Your task to perform on an android device: Open battery settings Image 0: 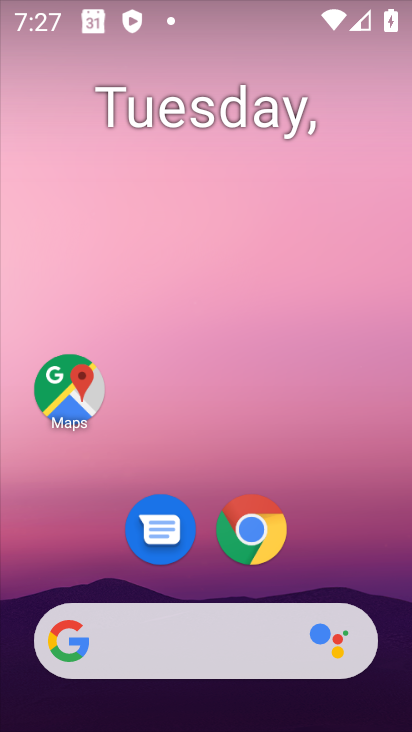
Step 0: drag from (204, 626) to (303, 13)
Your task to perform on an android device: Open battery settings Image 1: 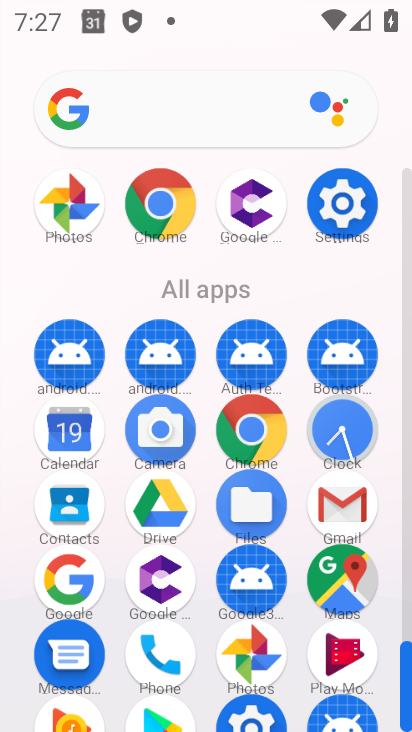
Step 1: click (334, 209)
Your task to perform on an android device: Open battery settings Image 2: 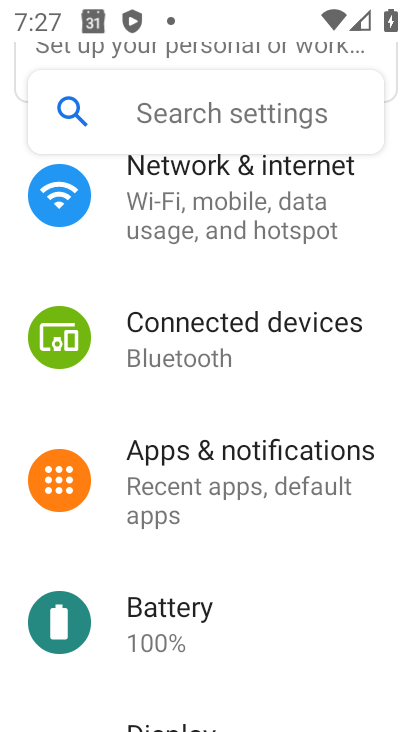
Step 2: click (179, 613)
Your task to perform on an android device: Open battery settings Image 3: 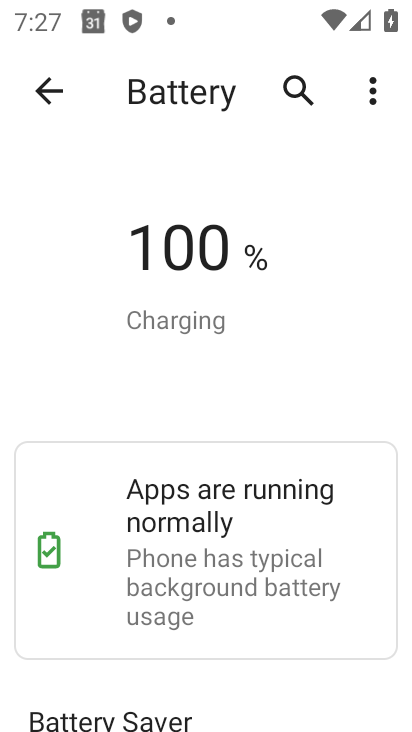
Step 3: task complete